Your task to perform on an android device: turn on bluetooth scan Image 0: 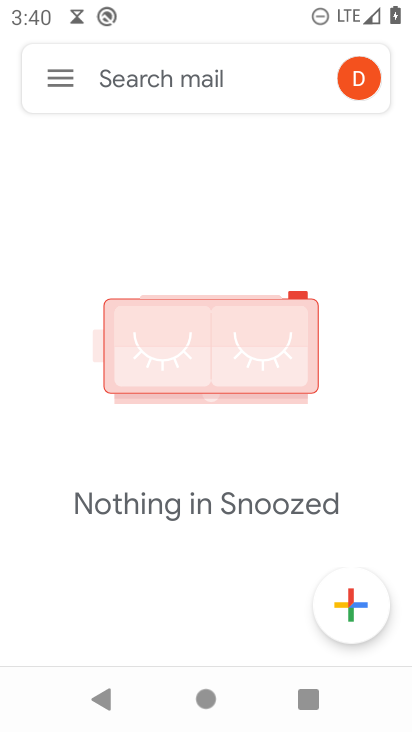
Step 0: press home button
Your task to perform on an android device: turn on bluetooth scan Image 1: 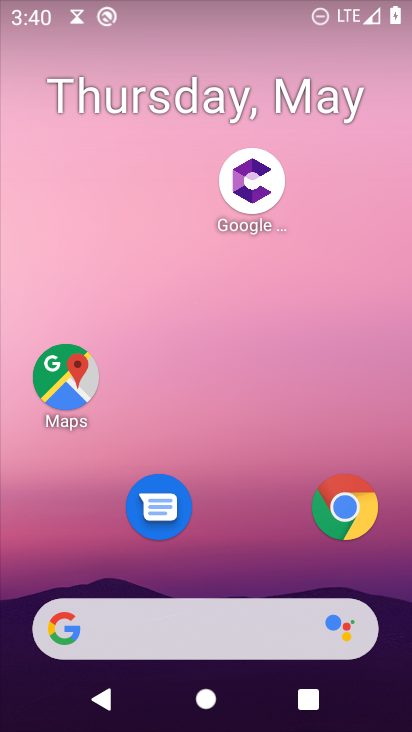
Step 1: drag from (234, 585) to (227, 103)
Your task to perform on an android device: turn on bluetooth scan Image 2: 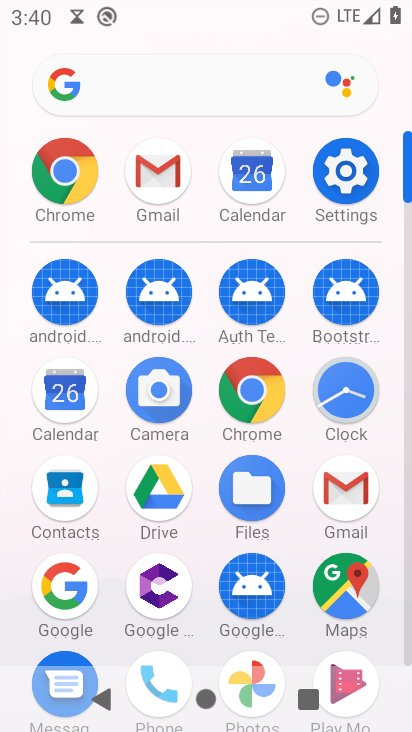
Step 2: click (327, 182)
Your task to perform on an android device: turn on bluetooth scan Image 3: 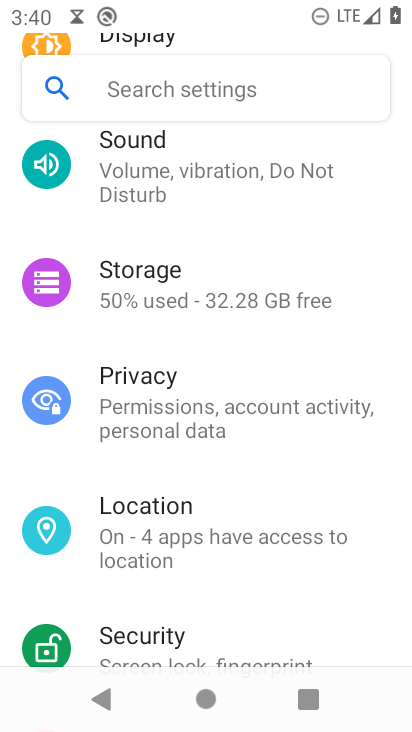
Step 3: click (156, 510)
Your task to perform on an android device: turn on bluetooth scan Image 4: 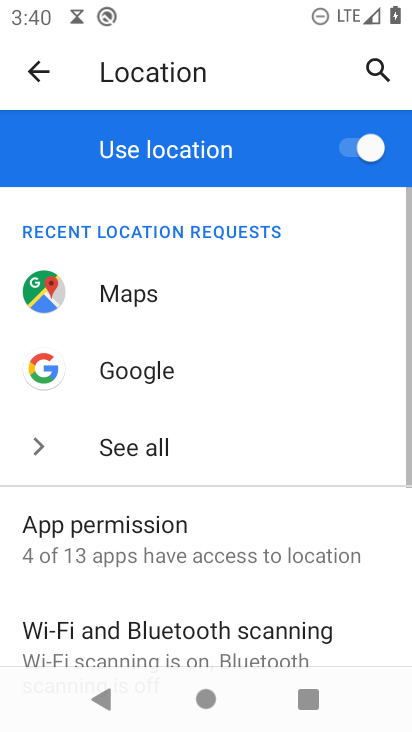
Step 4: drag from (315, 600) to (277, 354)
Your task to perform on an android device: turn on bluetooth scan Image 5: 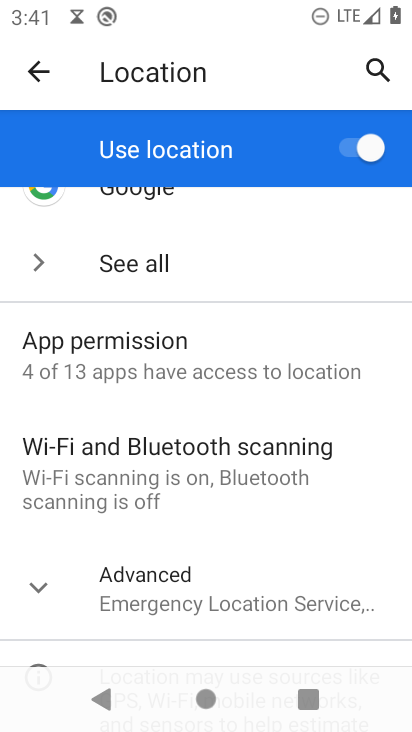
Step 5: click (191, 455)
Your task to perform on an android device: turn on bluetooth scan Image 6: 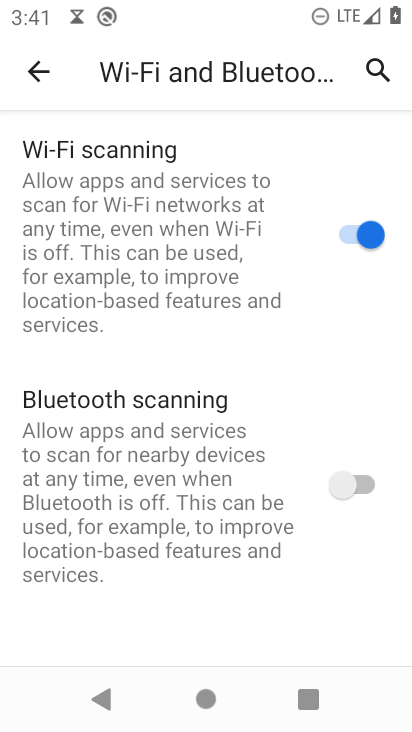
Step 6: click (347, 491)
Your task to perform on an android device: turn on bluetooth scan Image 7: 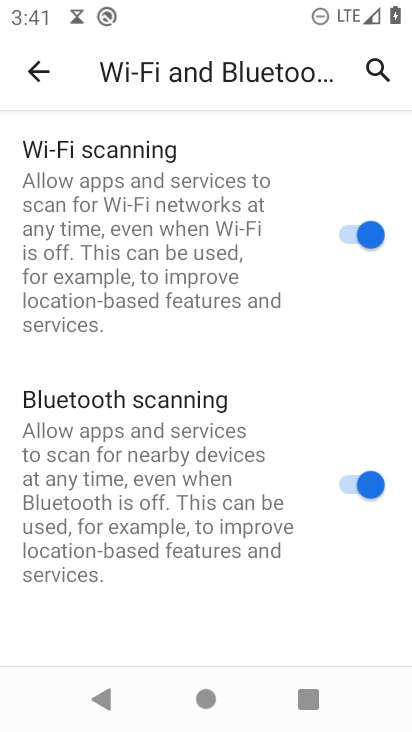
Step 7: task complete